Your task to perform on an android device: Open privacy settings Image 0: 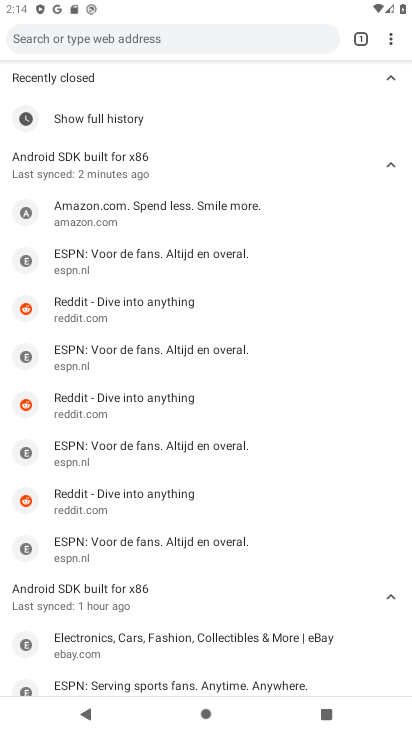
Step 0: drag from (294, 5) to (287, 645)
Your task to perform on an android device: Open privacy settings Image 1: 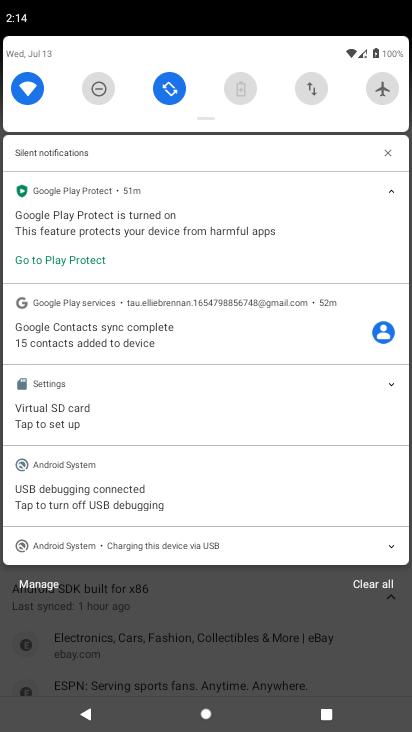
Step 1: drag from (208, 69) to (196, 688)
Your task to perform on an android device: Open privacy settings Image 2: 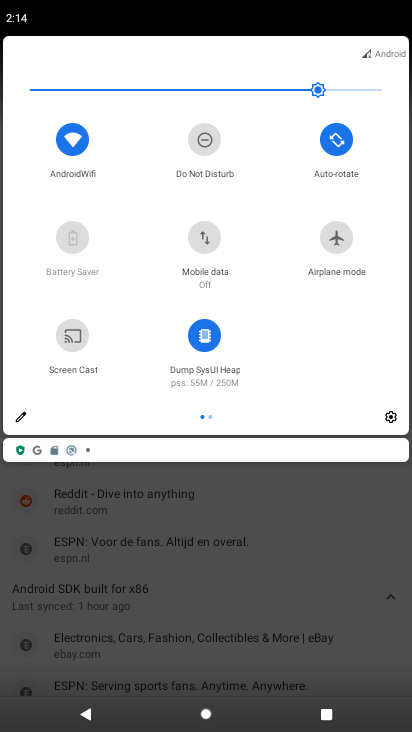
Step 2: click (385, 422)
Your task to perform on an android device: Open privacy settings Image 3: 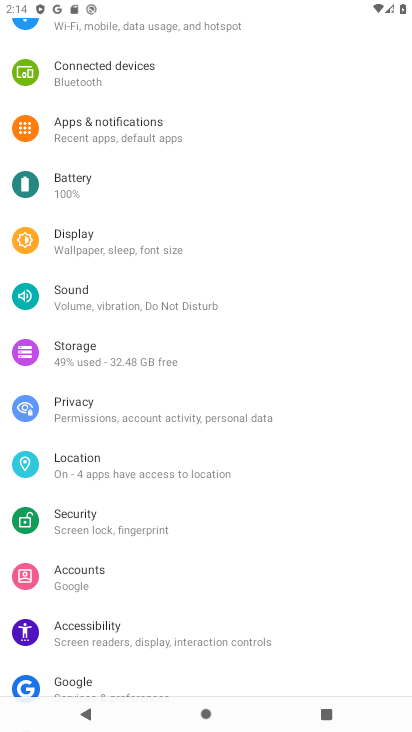
Step 3: click (100, 380)
Your task to perform on an android device: Open privacy settings Image 4: 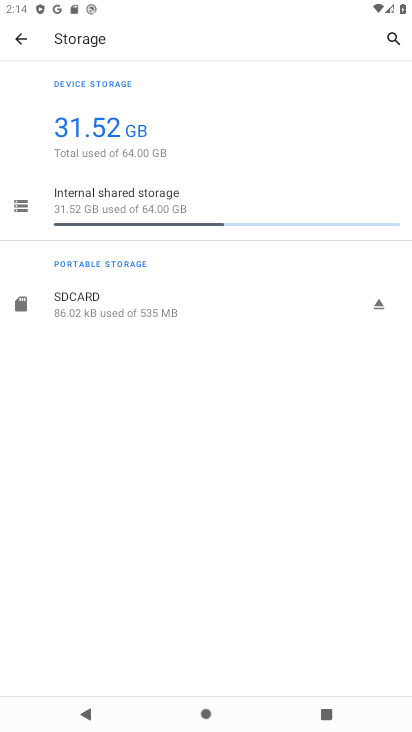
Step 4: click (100, 380)
Your task to perform on an android device: Open privacy settings Image 5: 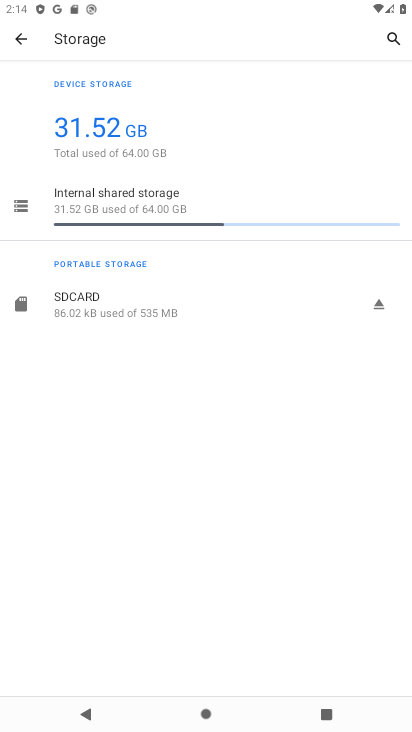
Step 5: task complete